Your task to perform on an android device: Open Chrome and go to settings Image 0: 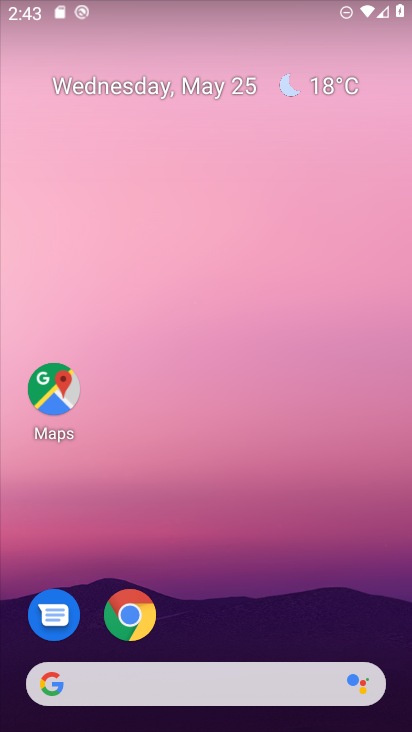
Step 0: click (141, 602)
Your task to perform on an android device: Open Chrome and go to settings Image 1: 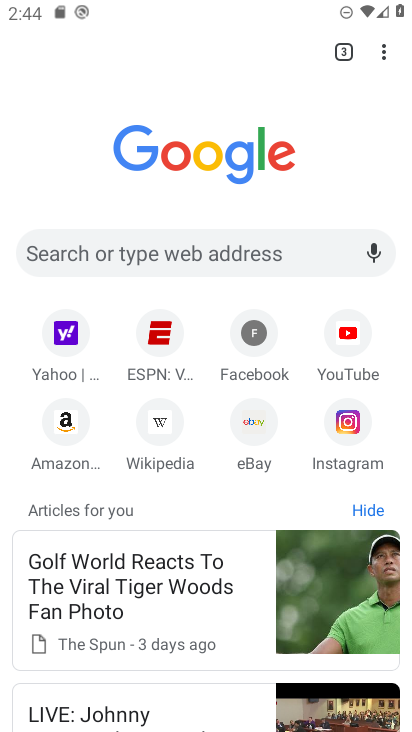
Step 1: click (383, 48)
Your task to perform on an android device: Open Chrome and go to settings Image 2: 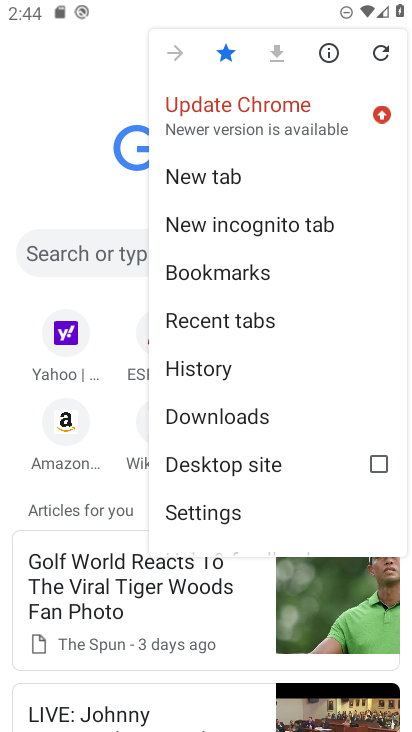
Step 2: click (257, 511)
Your task to perform on an android device: Open Chrome and go to settings Image 3: 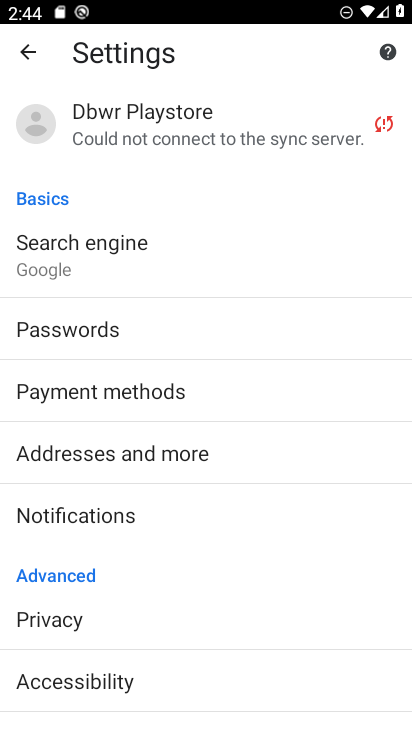
Step 3: task complete